Your task to perform on an android device: Open battery settings Image 0: 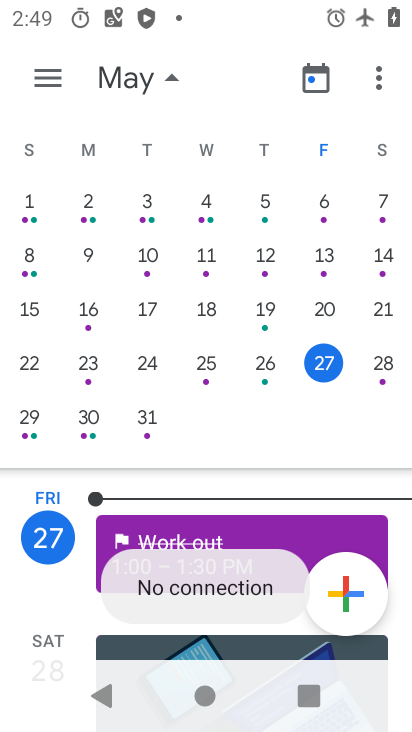
Step 0: press home button
Your task to perform on an android device: Open battery settings Image 1: 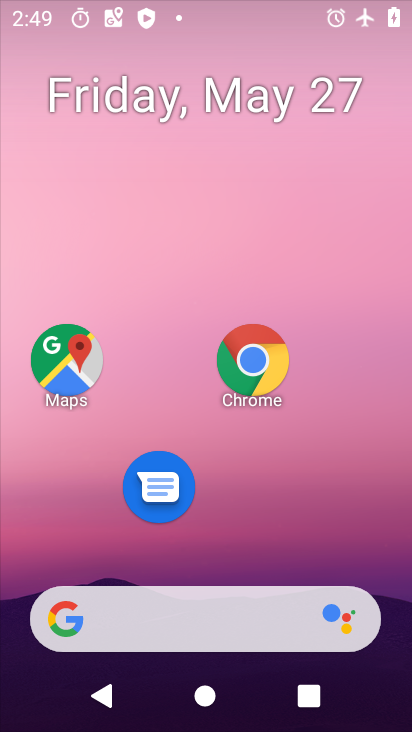
Step 1: drag from (241, 499) to (286, 99)
Your task to perform on an android device: Open battery settings Image 2: 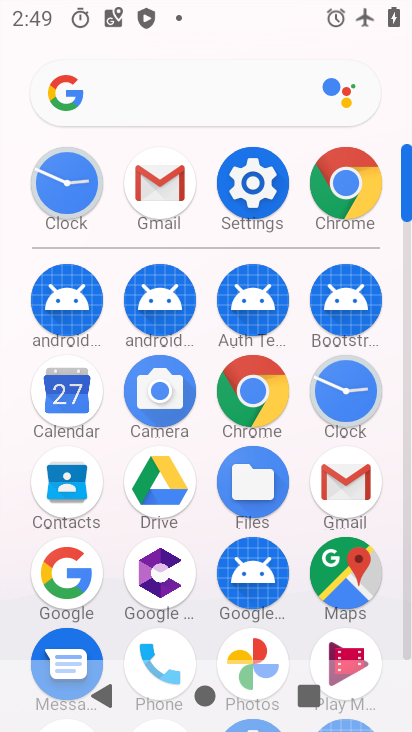
Step 2: click (251, 180)
Your task to perform on an android device: Open battery settings Image 3: 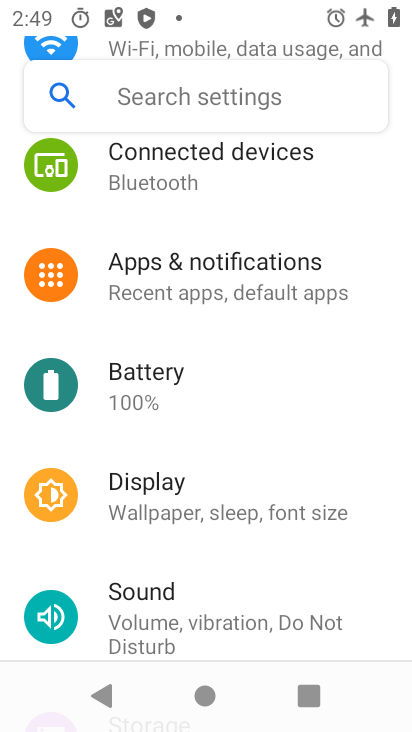
Step 3: click (176, 379)
Your task to perform on an android device: Open battery settings Image 4: 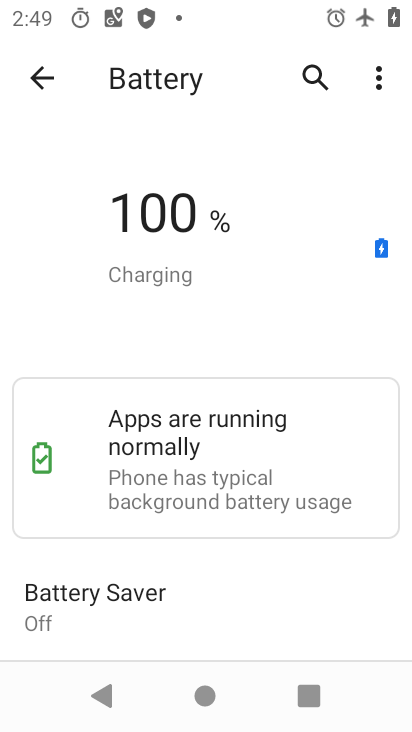
Step 4: task complete